Your task to perform on an android device: open a new tab in the chrome app Image 0: 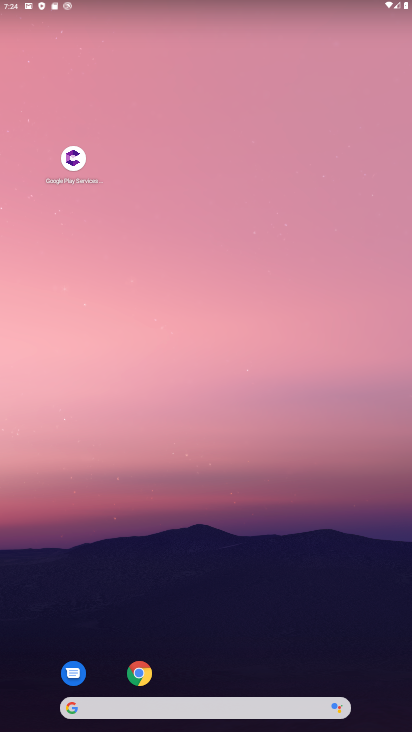
Step 0: click (140, 676)
Your task to perform on an android device: open a new tab in the chrome app Image 1: 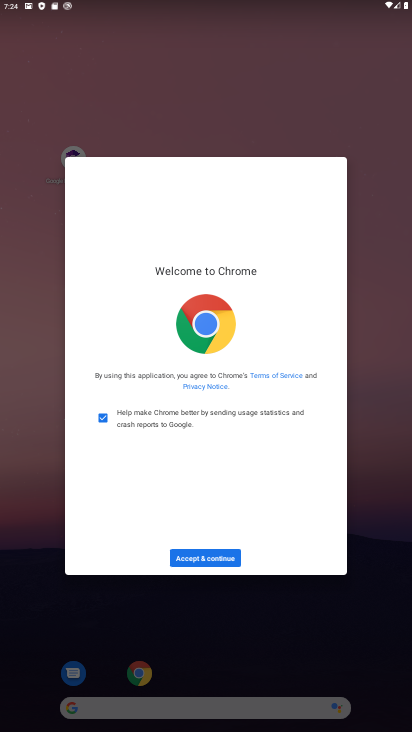
Step 1: click (208, 558)
Your task to perform on an android device: open a new tab in the chrome app Image 2: 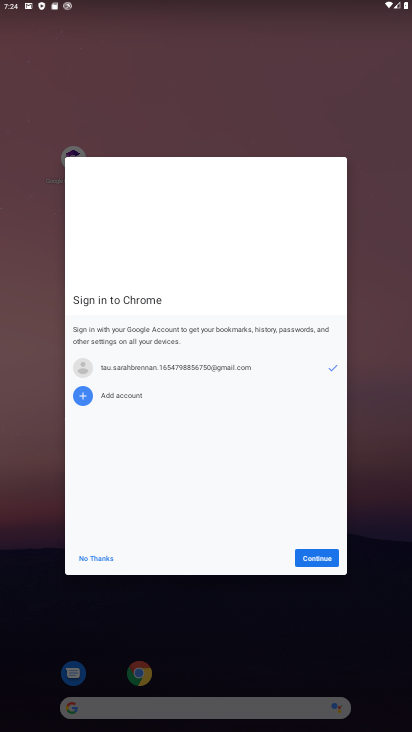
Step 2: click (333, 557)
Your task to perform on an android device: open a new tab in the chrome app Image 3: 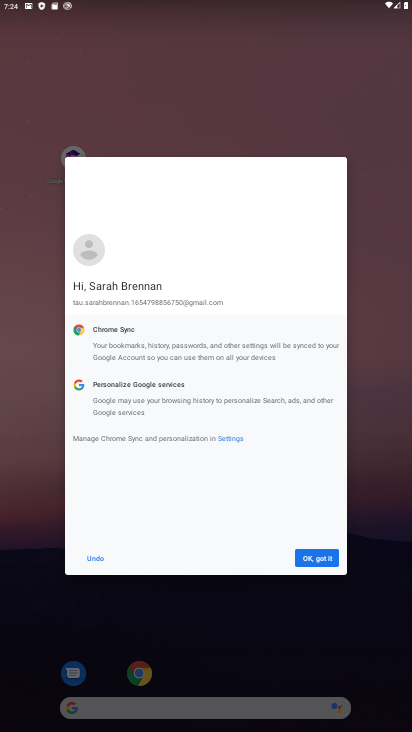
Step 3: click (331, 555)
Your task to perform on an android device: open a new tab in the chrome app Image 4: 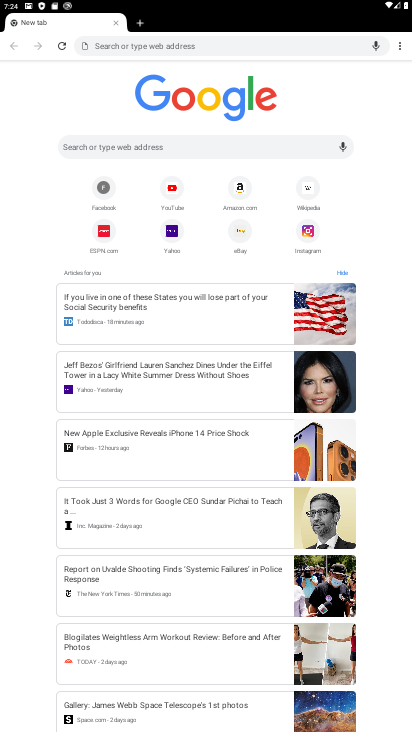
Step 4: click (401, 57)
Your task to perform on an android device: open a new tab in the chrome app Image 5: 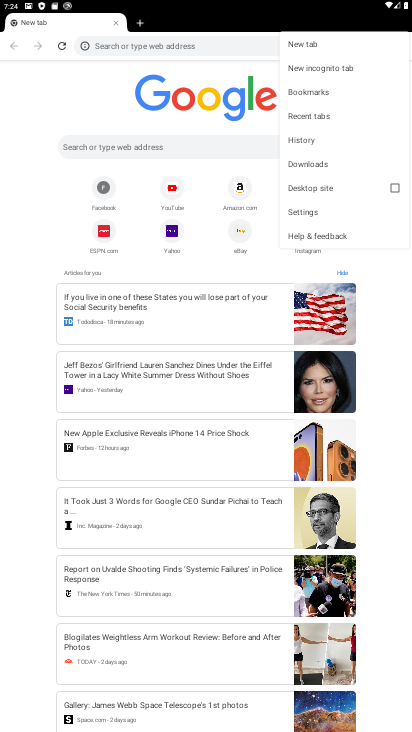
Step 5: click (323, 42)
Your task to perform on an android device: open a new tab in the chrome app Image 6: 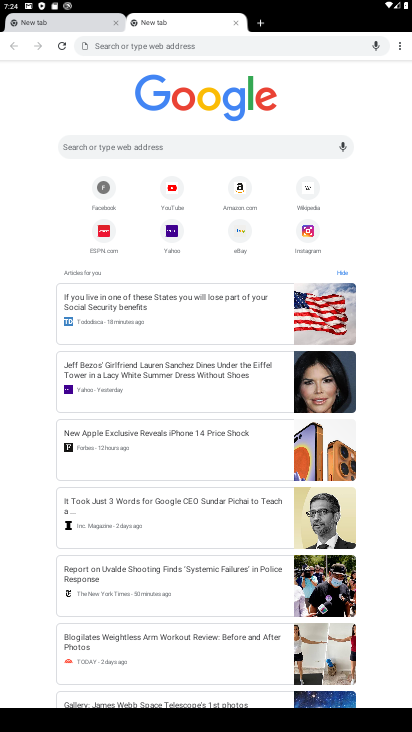
Step 6: task complete